Your task to perform on an android device: What is the news today? Image 0: 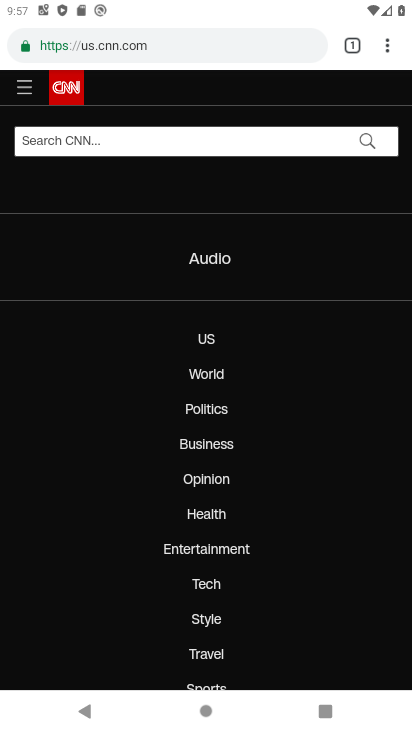
Step 0: press home button
Your task to perform on an android device: What is the news today? Image 1: 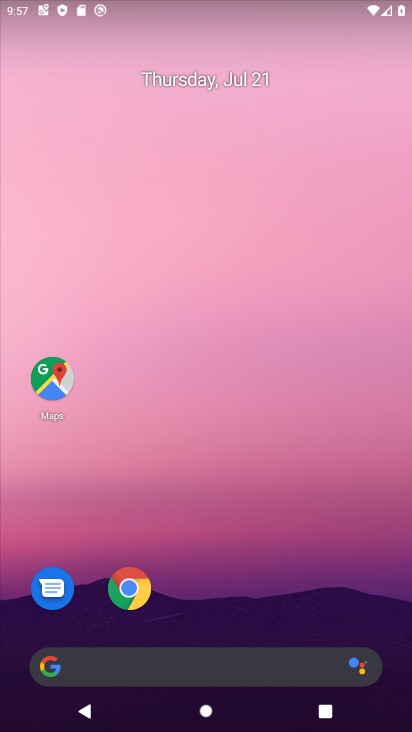
Step 1: task complete